Your task to perform on an android device: Open Amazon Image 0: 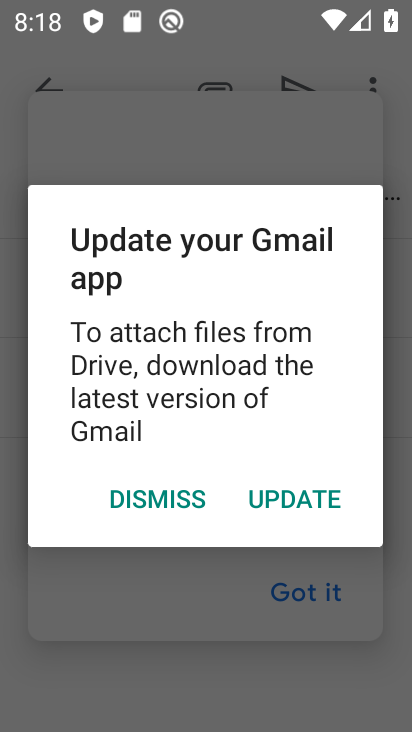
Step 0: press home button
Your task to perform on an android device: Open Amazon Image 1: 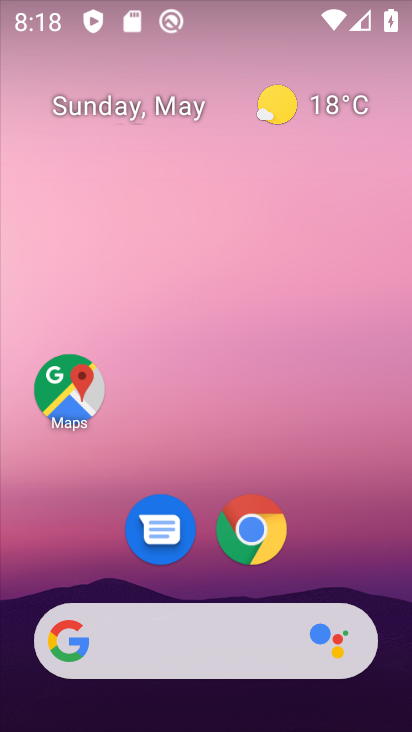
Step 1: click (259, 534)
Your task to perform on an android device: Open Amazon Image 2: 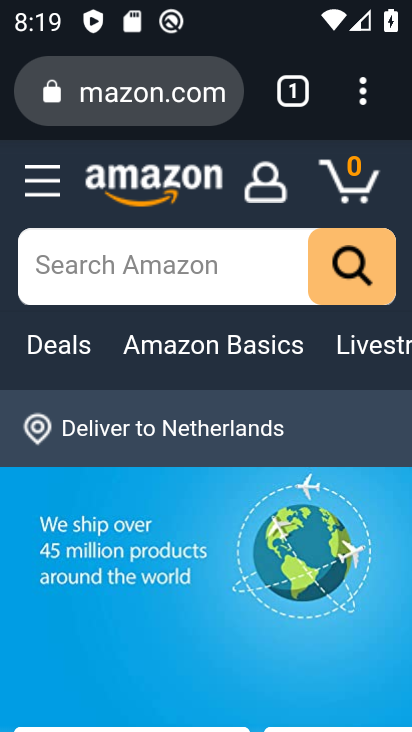
Step 2: task complete